Your task to perform on an android device: show emergency info Image 0: 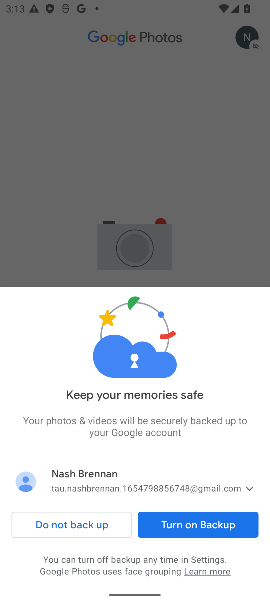
Step 0: press back button
Your task to perform on an android device: show emergency info Image 1: 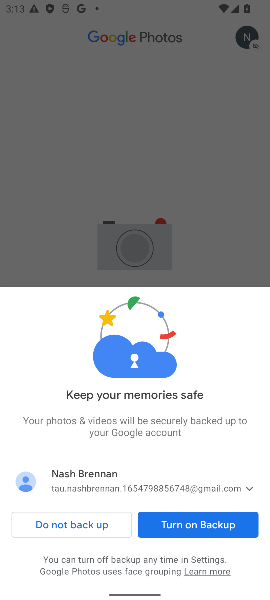
Step 1: press home button
Your task to perform on an android device: show emergency info Image 2: 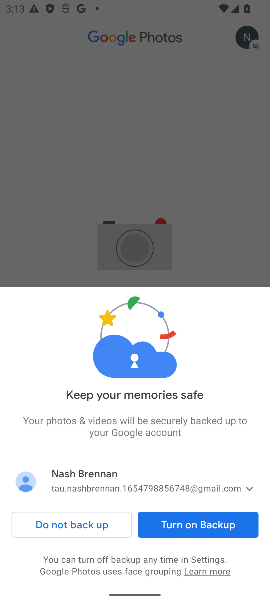
Step 2: press home button
Your task to perform on an android device: show emergency info Image 3: 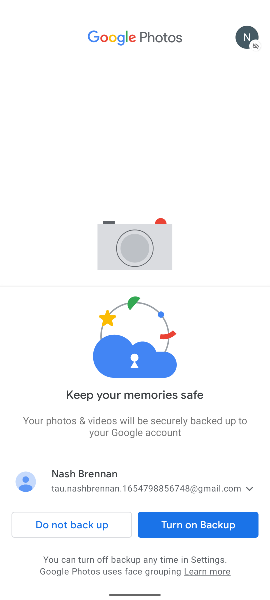
Step 3: press home button
Your task to perform on an android device: show emergency info Image 4: 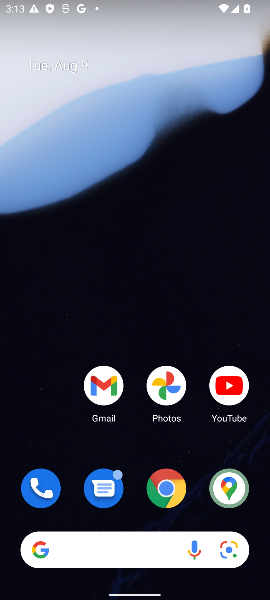
Step 4: drag from (200, 451) to (177, 97)
Your task to perform on an android device: show emergency info Image 5: 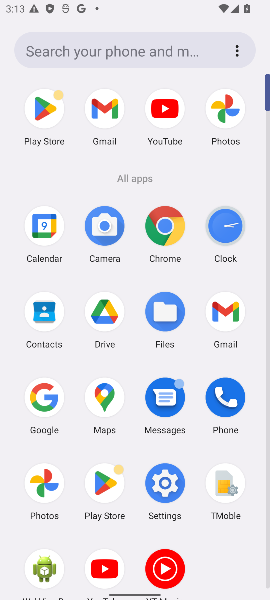
Step 5: click (167, 494)
Your task to perform on an android device: show emergency info Image 6: 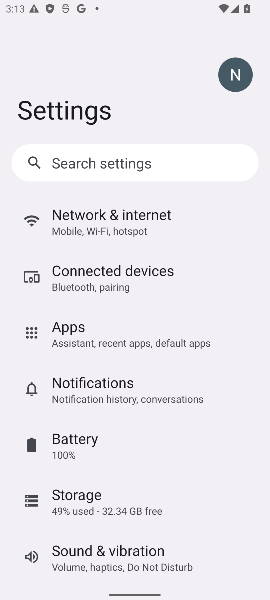
Step 6: drag from (203, 567) to (183, 210)
Your task to perform on an android device: show emergency info Image 7: 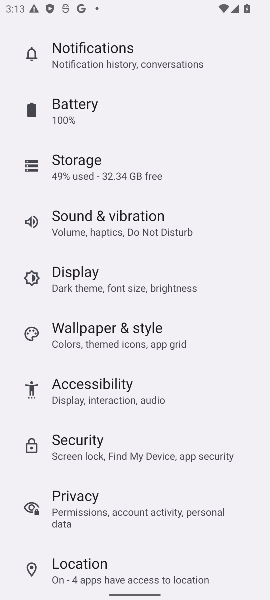
Step 7: drag from (212, 561) to (201, 175)
Your task to perform on an android device: show emergency info Image 8: 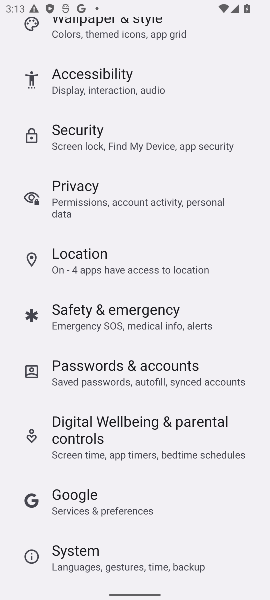
Step 8: click (136, 320)
Your task to perform on an android device: show emergency info Image 9: 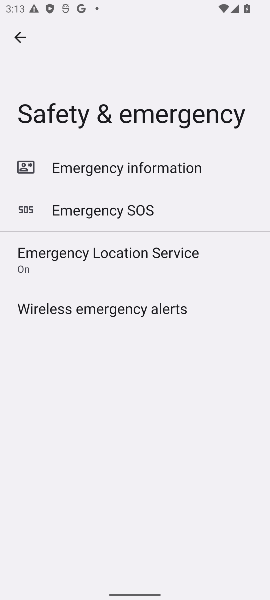
Step 9: click (149, 167)
Your task to perform on an android device: show emergency info Image 10: 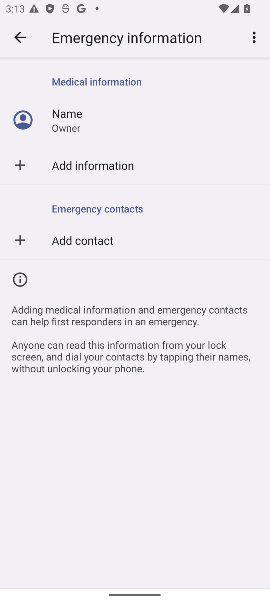
Step 10: task complete